Your task to perform on an android device: turn off notifications in google photos Image 0: 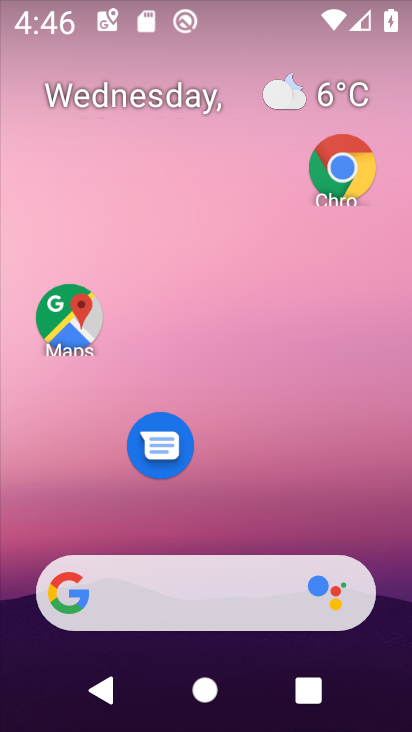
Step 0: drag from (211, 515) to (226, 4)
Your task to perform on an android device: turn off notifications in google photos Image 1: 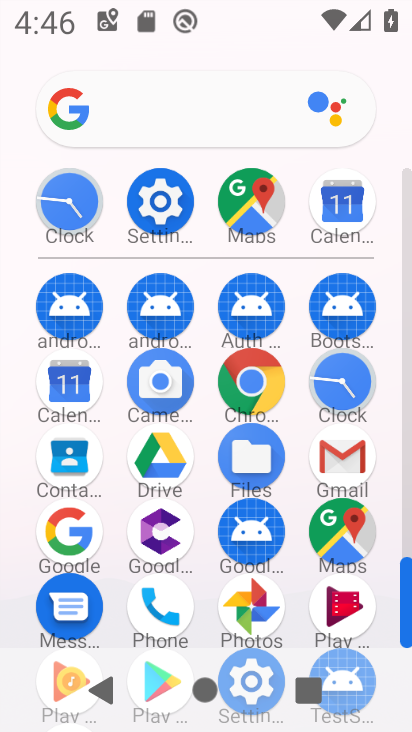
Step 1: click (242, 608)
Your task to perform on an android device: turn off notifications in google photos Image 2: 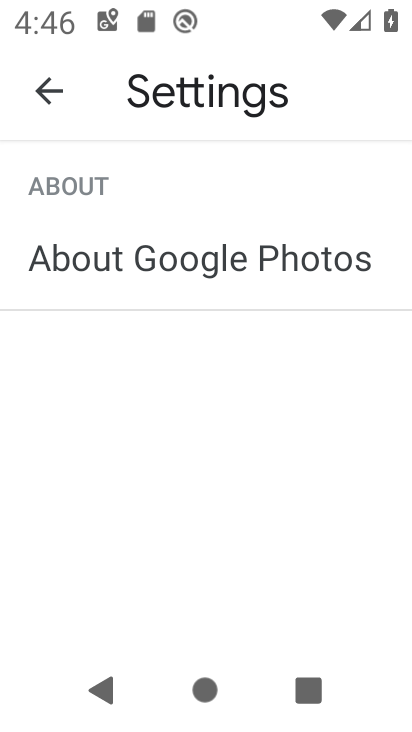
Step 2: click (38, 83)
Your task to perform on an android device: turn off notifications in google photos Image 3: 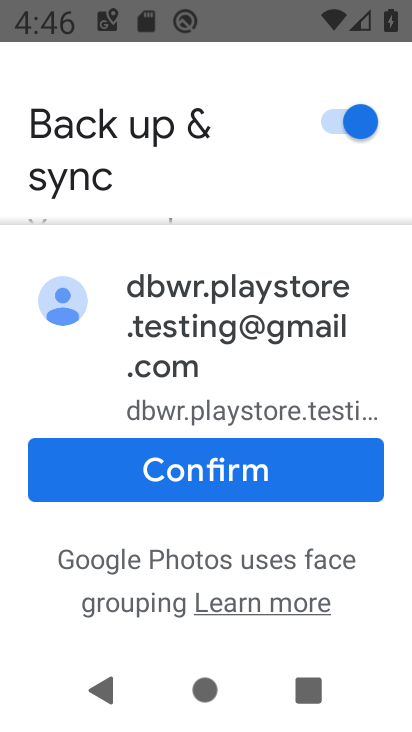
Step 3: click (77, 93)
Your task to perform on an android device: turn off notifications in google photos Image 4: 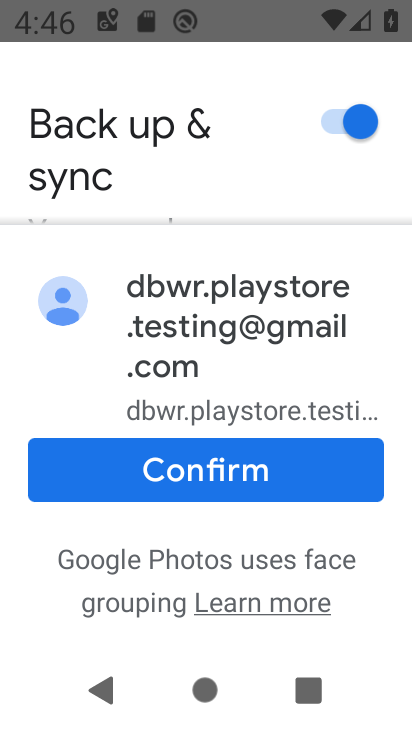
Step 4: click (229, 444)
Your task to perform on an android device: turn off notifications in google photos Image 5: 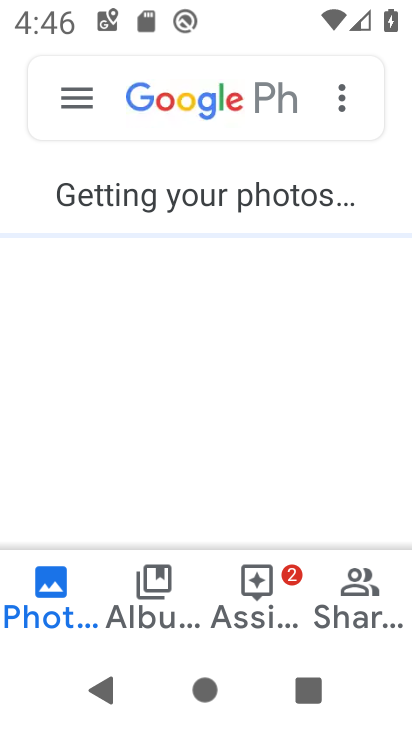
Step 5: click (70, 107)
Your task to perform on an android device: turn off notifications in google photos Image 6: 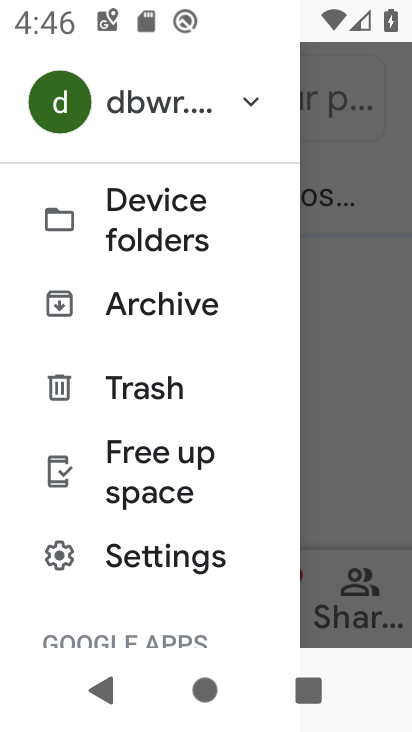
Step 6: drag from (163, 532) to (203, 103)
Your task to perform on an android device: turn off notifications in google photos Image 7: 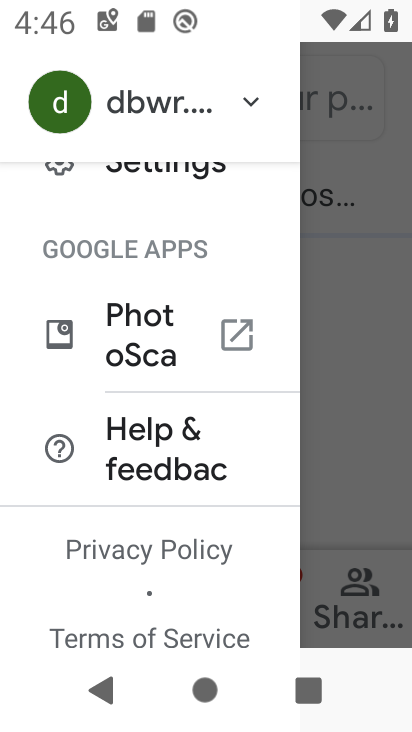
Step 7: click (135, 175)
Your task to perform on an android device: turn off notifications in google photos Image 8: 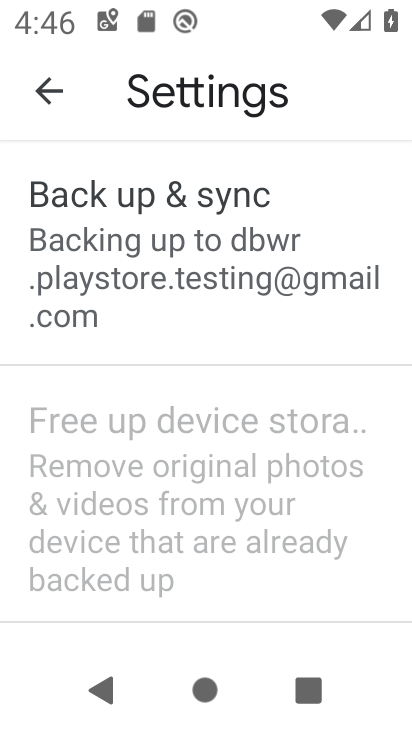
Step 8: drag from (157, 523) to (231, 145)
Your task to perform on an android device: turn off notifications in google photos Image 9: 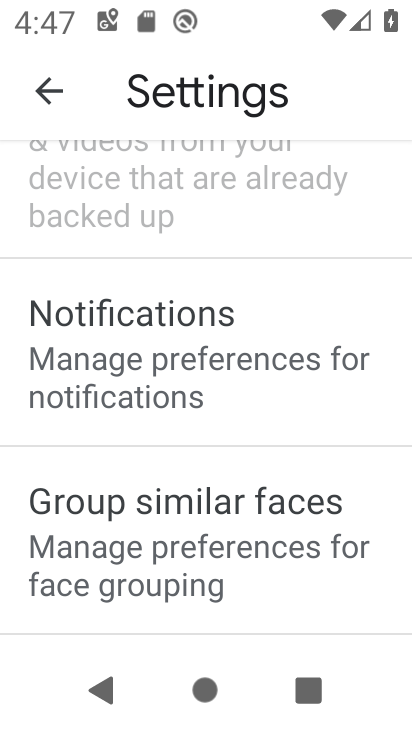
Step 9: click (162, 403)
Your task to perform on an android device: turn off notifications in google photos Image 10: 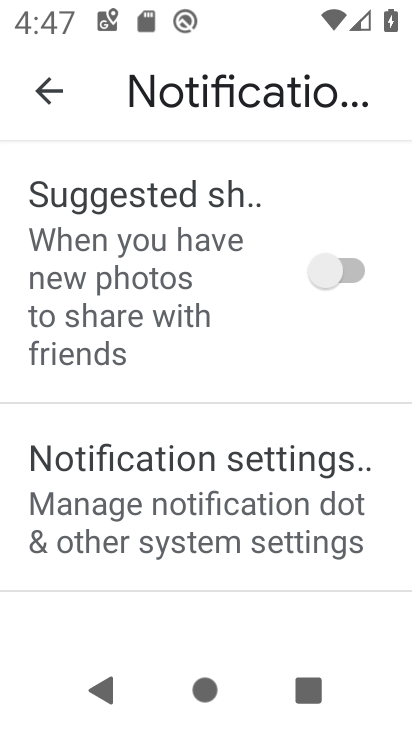
Step 10: click (192, 514)
Your task to perform on an android device: turn off notifications in google photos Image 11: 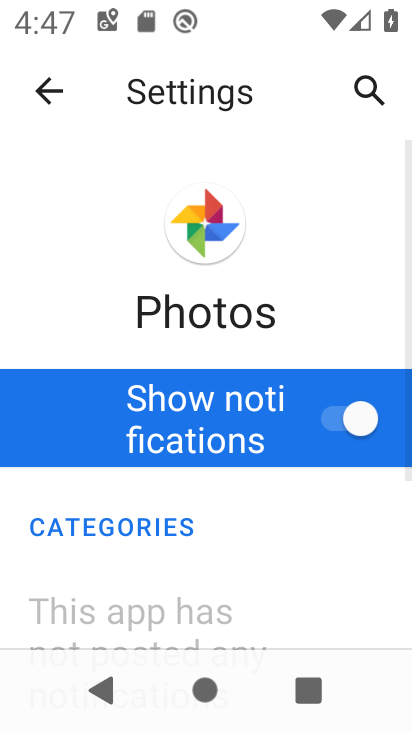
Step 11: click (323, 421)
Your task to perform on an android device: turn off notifications in google photos Image 12: 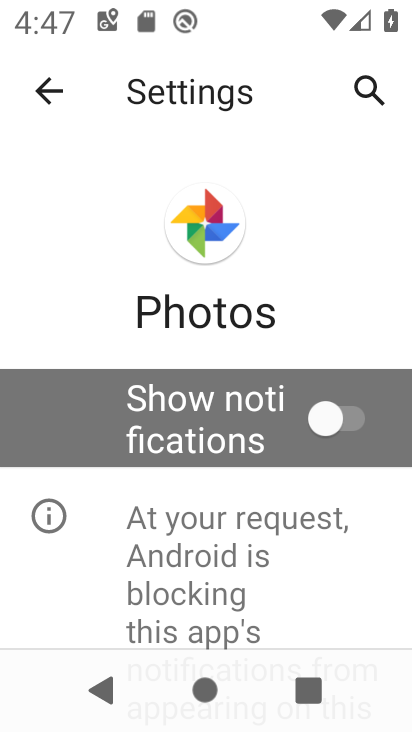
Step 12: task complete